Your task to perform on an android device: Go to Maps Image 0: 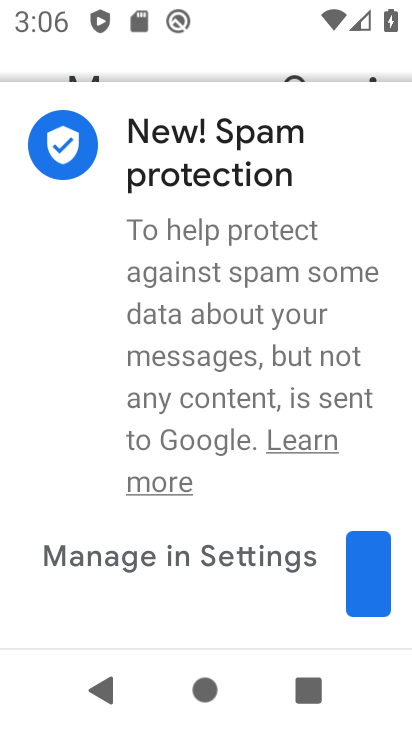
Step 0: press home button
Your task to perform on an android device: Go to Maps Image 1: 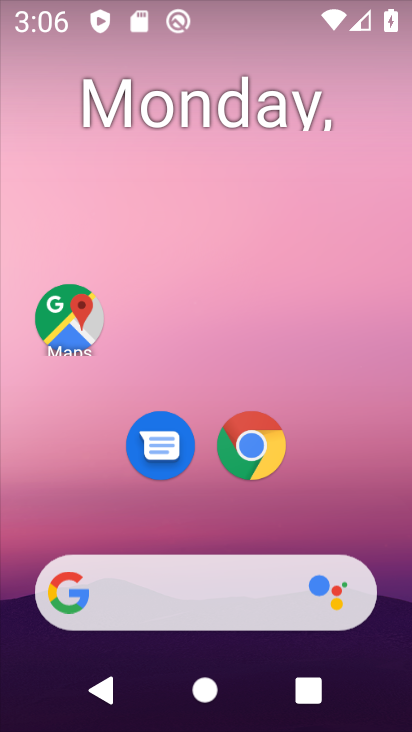
Step 1: click (73, 305)
Your task to perform on an android device: Go to Maps Image 2: 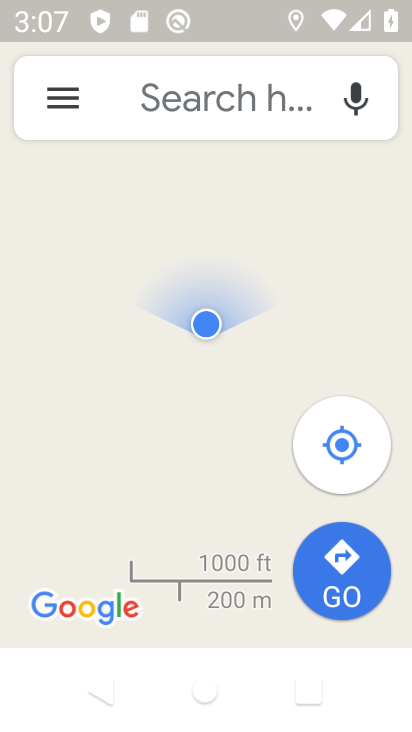
Step 2: click (67, 108)
Your task to perform on an android device: Go to Maps Image 3: 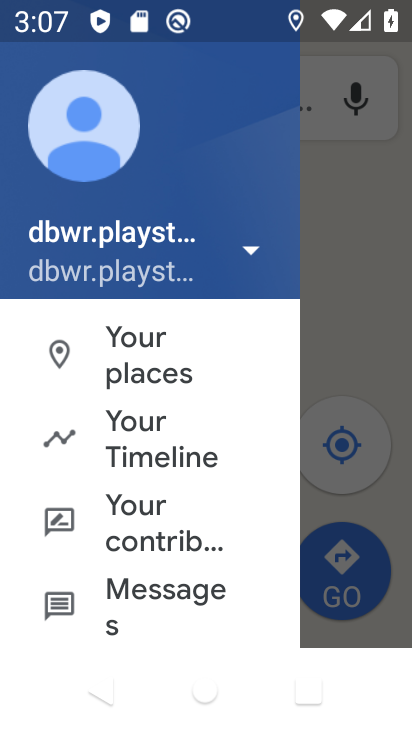
Step 3: task complete